Your task to perform on an android device: turn pop-ups off in chrome Image 0: 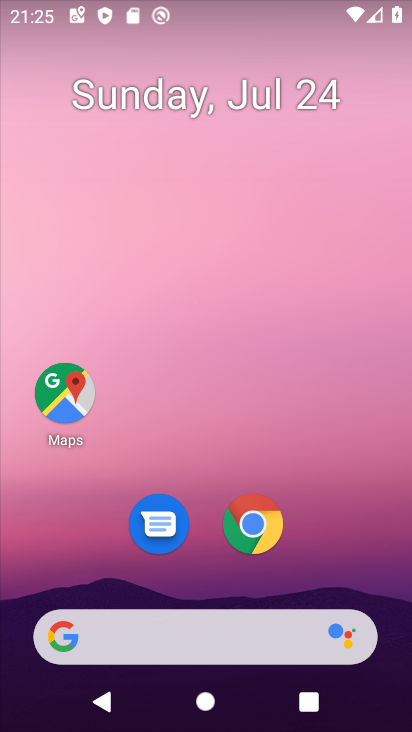
Step 0: press home button
Your task to perform on an android device: turn pop-ups off in chrome Image 1: 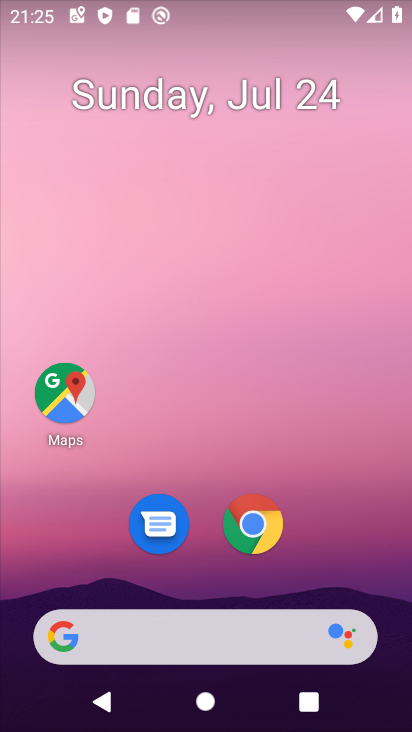
Step 1: click (259, 531)
Your task to perform on an android device: turn pop-ups off in chrome Image 2: 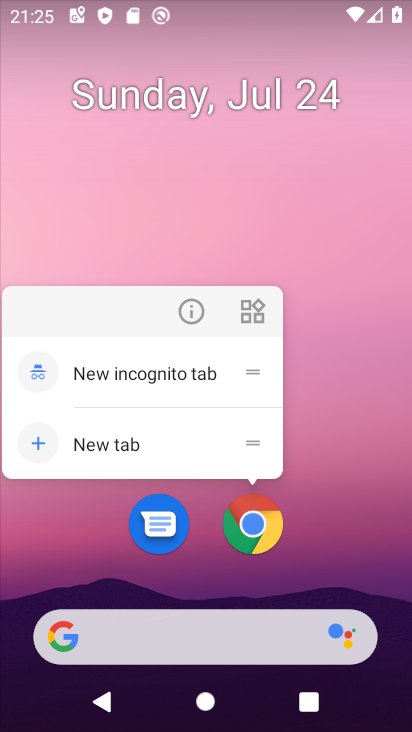
Step 2: click (254, 517)
Your task to perform on an android device: turn pop-ups off in chrome Image 3: 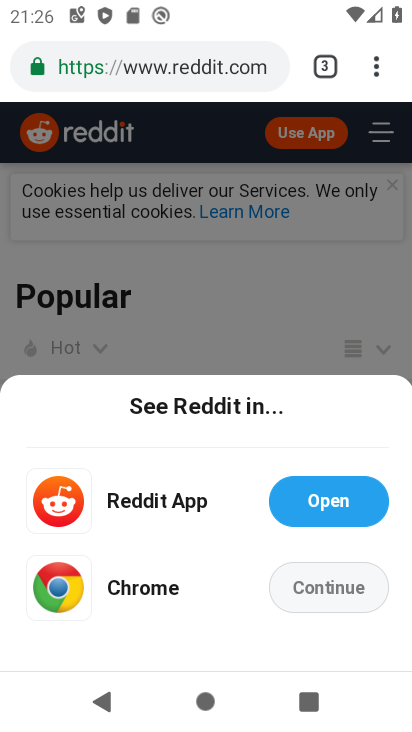
Step 3: drag from (380, 71) to (218, 528)
Your task to perform on an android device: turn pop-ups off in chrome Image 4: 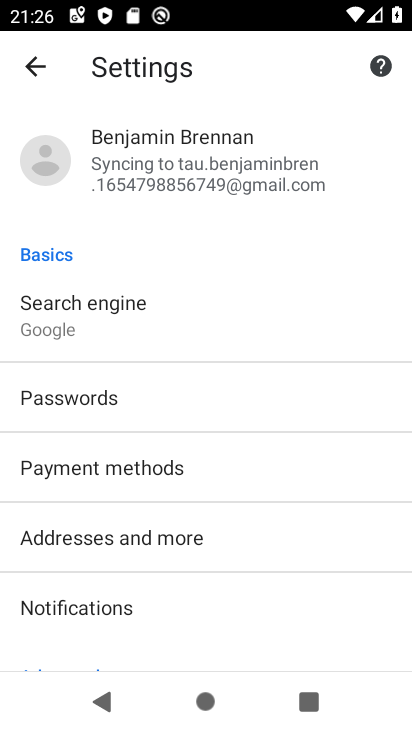
Step 4: drag from (213, 614) to (338, 103)
Your task to perform on an android device: turn pop-ups off in chrome Image 5: 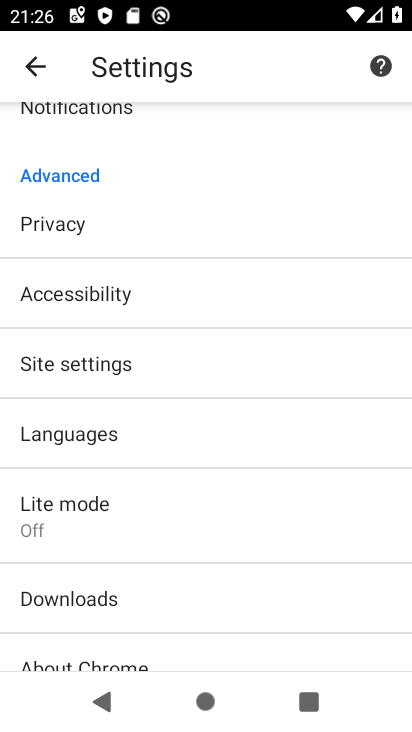
Step 5: click (122, 372)
Your task to perform on an android device: turn pop-ups off in chrome Image 6: 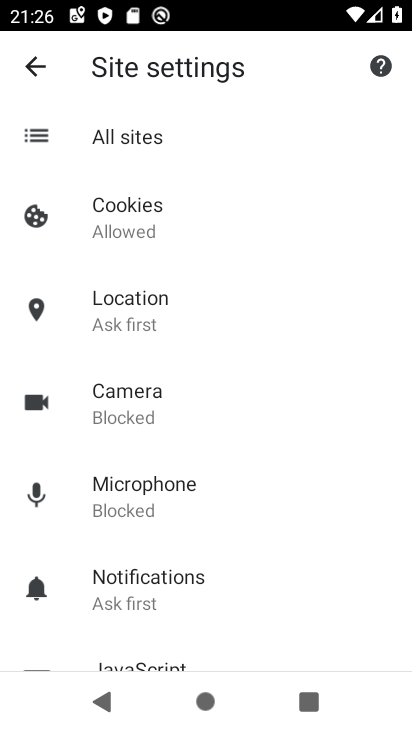
Step 6: drag from (249, 593) to (277, 310)
Your task to perform on an android device: turn pop-ups off in chrome Image 7: 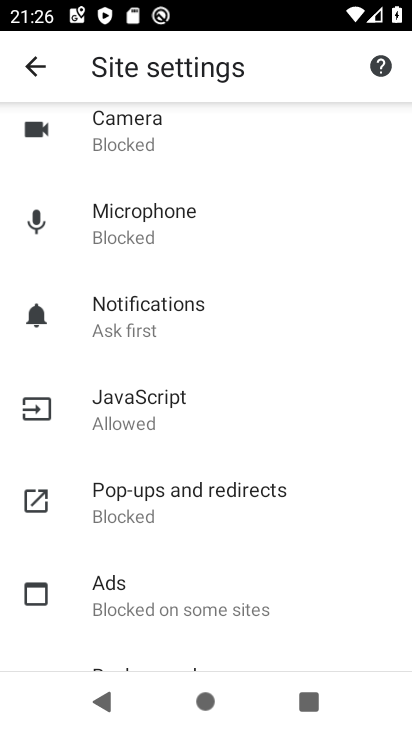
Step 7: click (189, 495)
Your task to perform on an android device: turn pop-ups off in chrome Image 8: 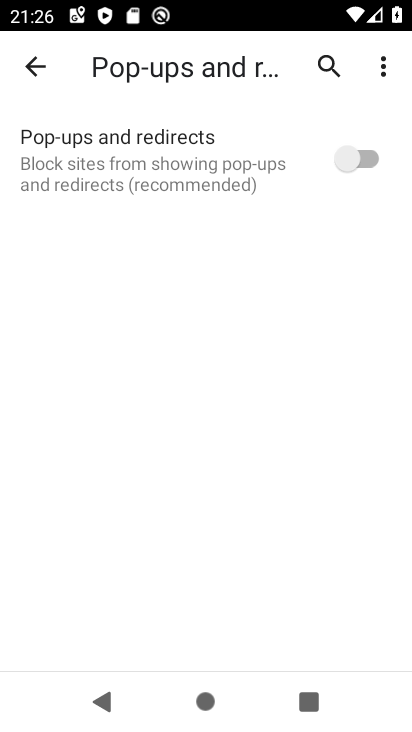
Step 8: task complete